Your task to perform on an android device: search for starred emails in the gmail app Image 0: 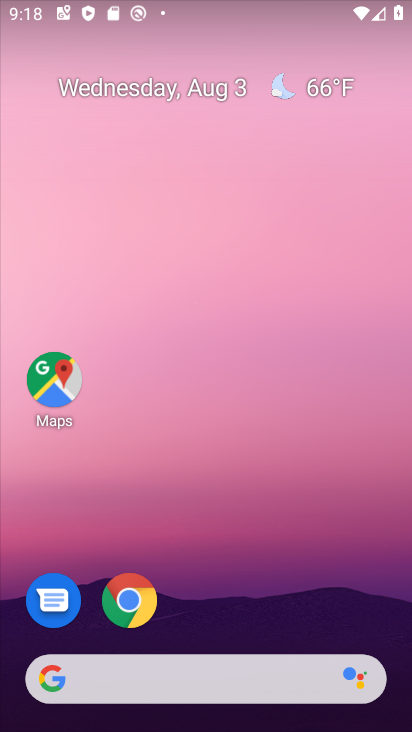
Step 0: drag from (206, 636) to (193, 17)
Your task to perform on an android device: search for starred emails in the gmail app Image 1: 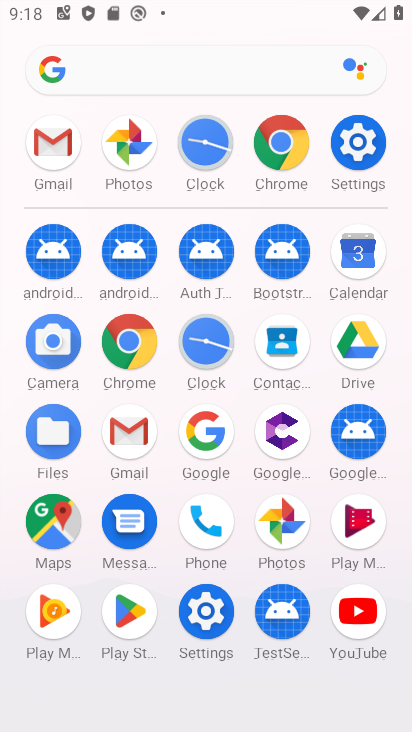
Step 1: click (128, 433)
Your task to perform on an android device: search for starred emails in the gmail app Image 2: 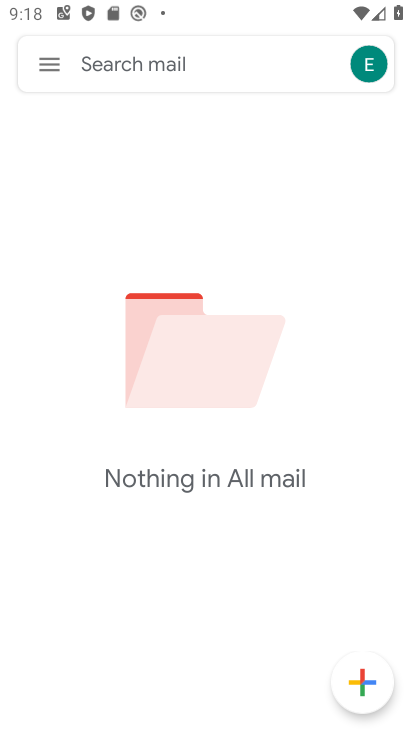
Step 2: click (48, 60)
Your task to perform on an android device: search for starred emails in the gmail app Image 3: 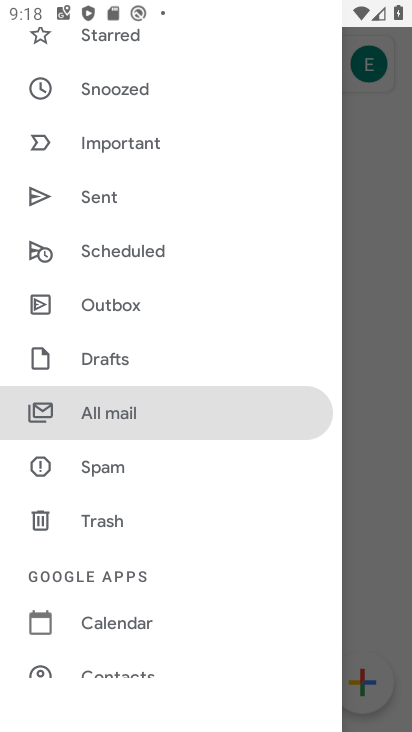
Step 3: drag from (128, 229) to (120, 526)
Your task to perform on an android device: search for starred emails in the gmail app Image 4: 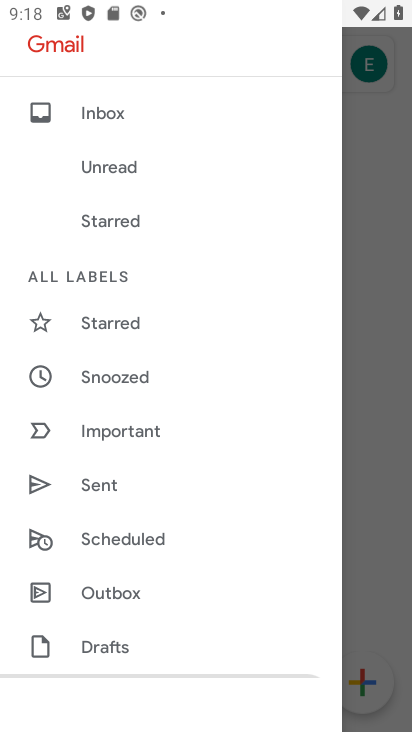
Step 4: click (102, 330)
Your task to perform on an android device: search for starred emails in the gmail app Image 5: 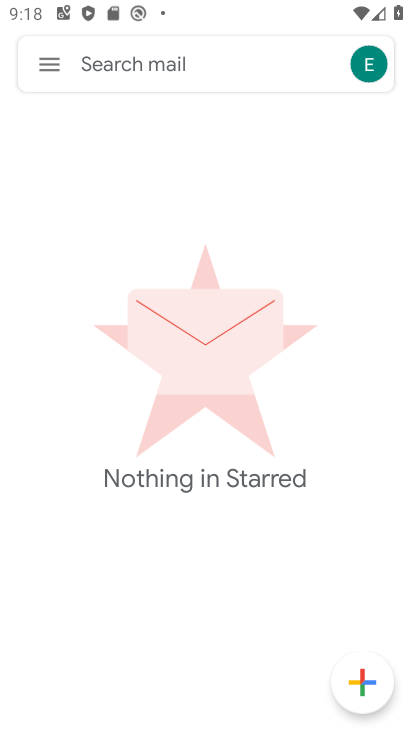
Step 5: task complete